Your task to perform on an android device: turn pop-ups on in chrome Image 0: 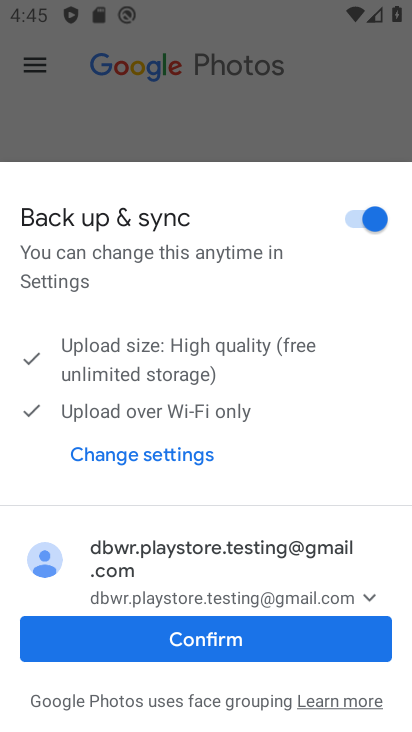
Step 0: press home button
Your task to perform on an android device: turn pop-ups on in chrome Image 1: 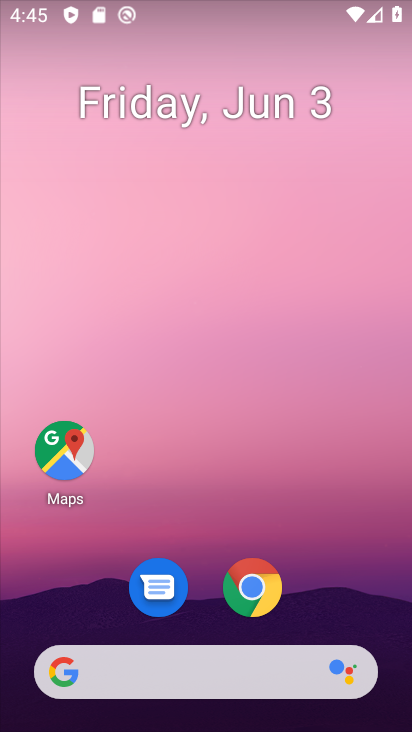
Step 1: click (239, 616)
Your task to perform on an android device: turn pop-ups on in chrome Image 2: 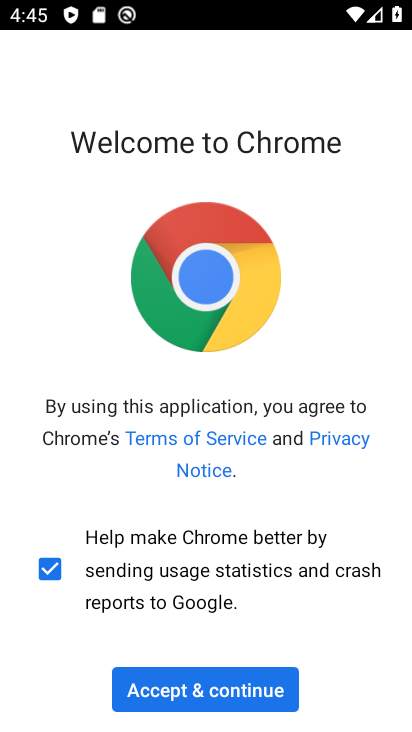
Step 2: click (205, 683)
Your task to perform on an android device: turn pop-ups on in chrome Image 3: 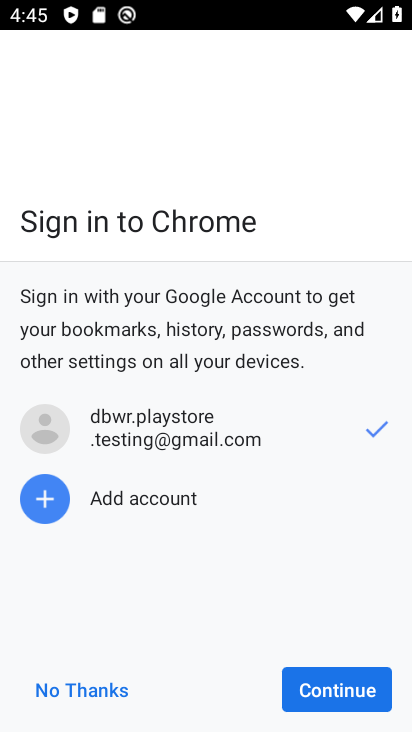
Step 3: click (340, 693)
Your task to perform on an android device: turn pop-ups on in chrome Image 4: 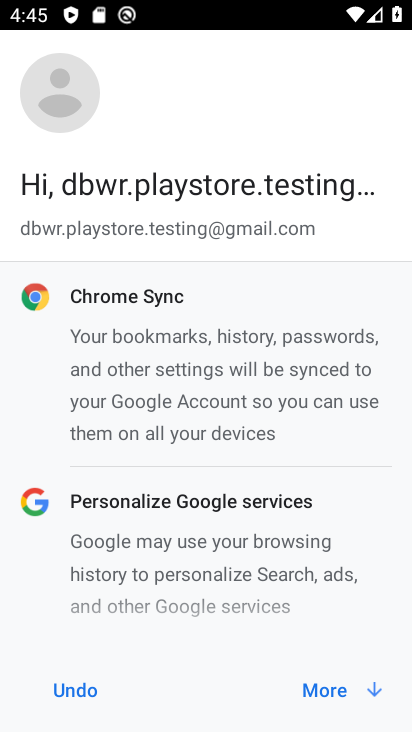
Step 4: click (347, 696)
Your task to perform on an android device: turn pop-ups on in chrome Image 5: 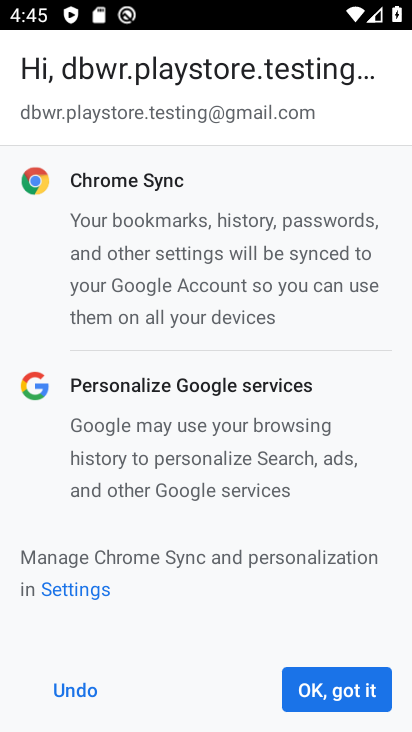
Step 5: click (344, 692)
Your task to perform on an android device: turn pop-ups on in chrome Image 6: 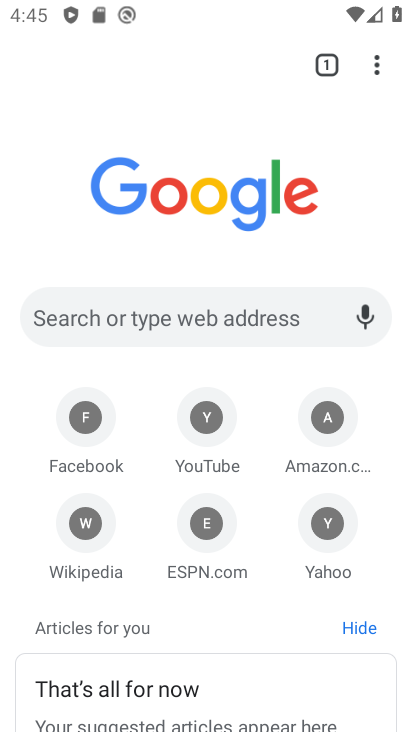
Step 6: click (376, 62)
Your task to perform on an android device: turn pop-ups on in chrome Image 7: 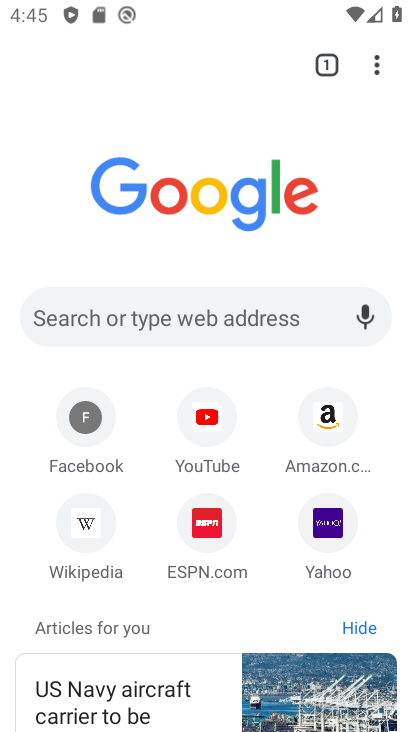
Step 7: click (378, 63)
Your task to perform on an android device: turn pop-ups on in chrome Image 8: 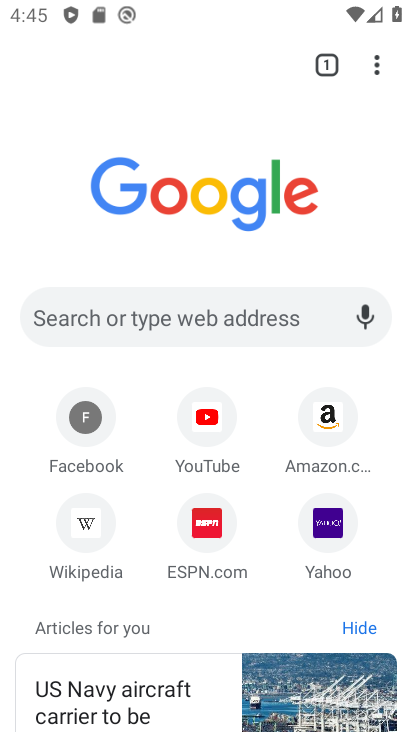
Step 8: click (378, 73)
Your task to perform on an android device: turn pop-ups on in chrome Image 9: 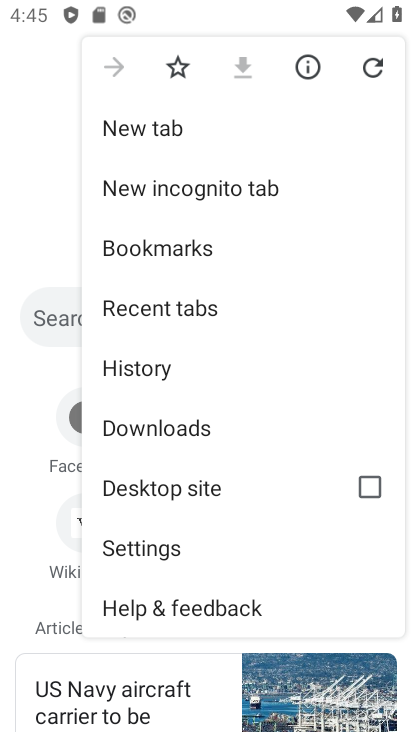
Step 9: click (159, 557)
Your task to perform on an android device: turn pop-ups on in chrome Image 10: 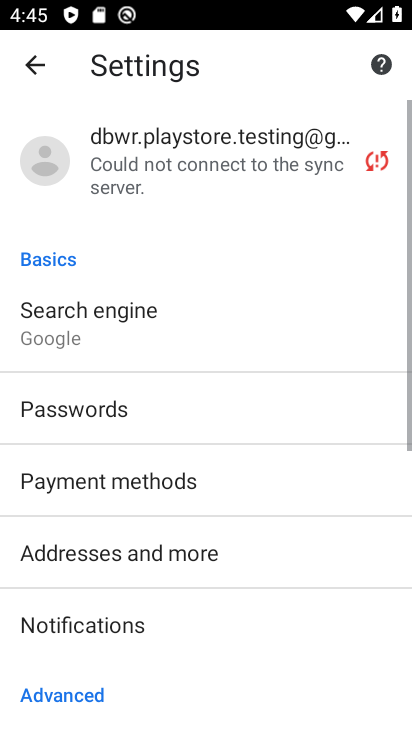
Step 10: drag from (146, 655) to (187, 208)
Your task to perform on an android device: turn pop-ups on in chrome Image 11: 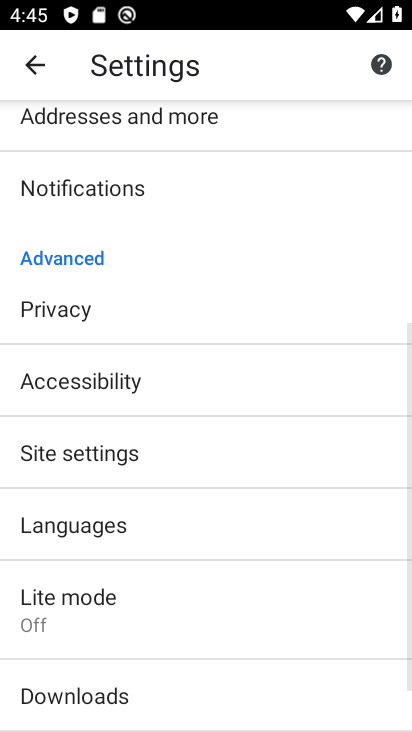
Step 11: drag from (122, 464) to (79, 459)
Your task to perform on an android device: turn pop-ups on in chrome Image 12: 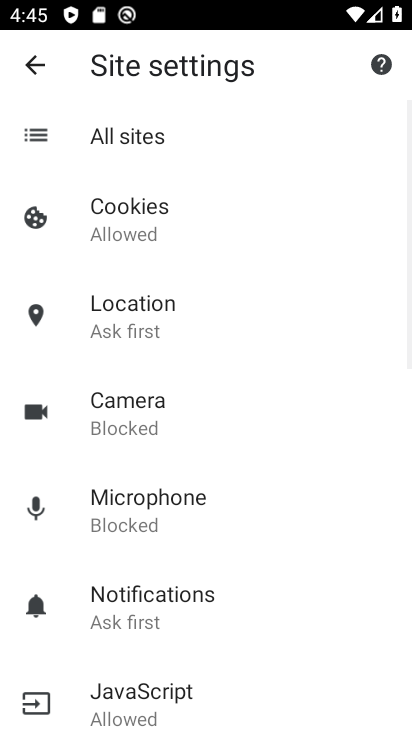
Step 12: drag from (261, 662) to (235, 287)
Your task to perform on an android device: turn pop-ups on in chrome Image 13: 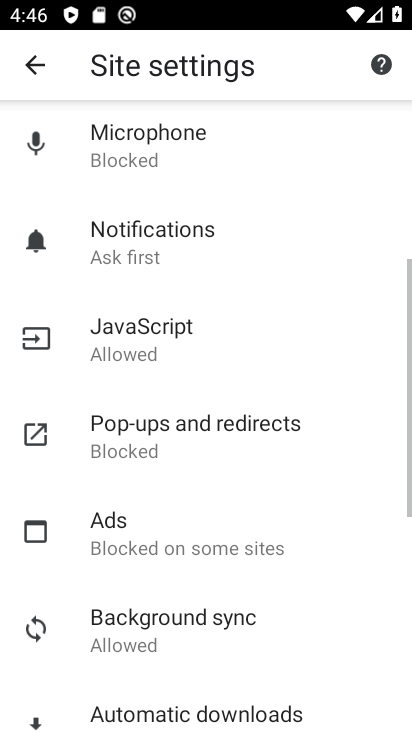
Step 13: click (233, 434)
Your task to perform on an android device: turn pop-ups on in chrome Image 14: 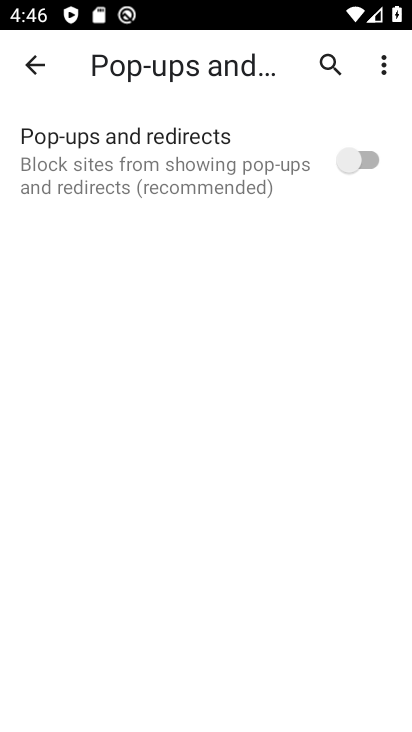
Step 14: click (364, 161)
Your task to perform on an android device: turn pop-ups on in chrome Image 15: 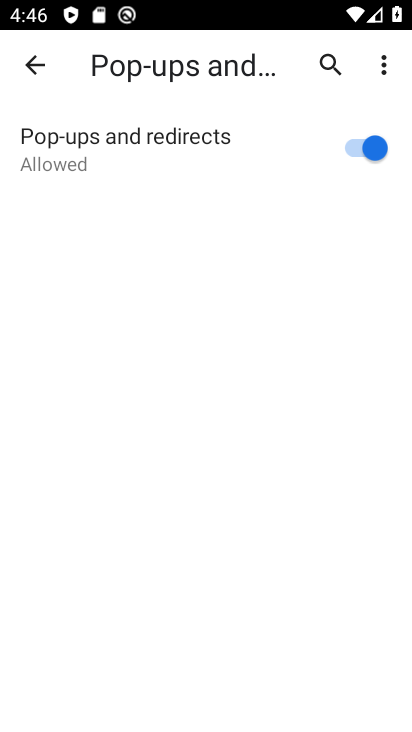
Step 15: task complete